Your task to perform on an android device: show emergency info Image 0: 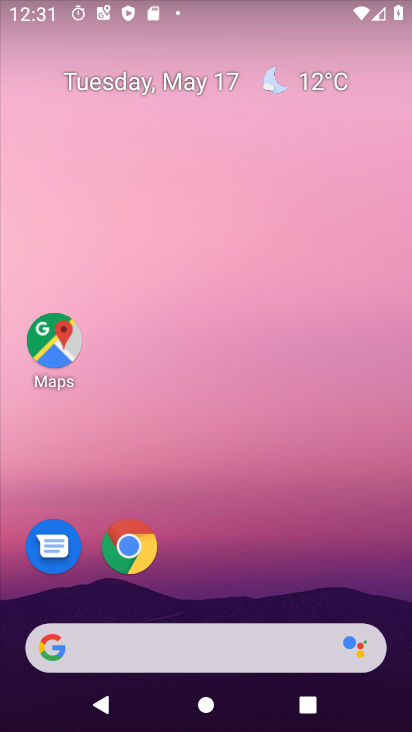
Step 0: drag from (224, 637) to (368, 341)
Your task to perform on an android device: show emergency info Image 1: 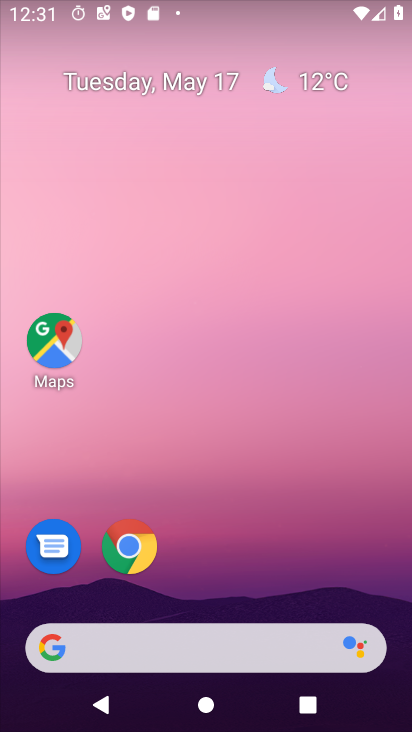
Step 1: drag from (258, 661) to (408, 85)
Your task to perform on an android device: show emergency info Image 2: 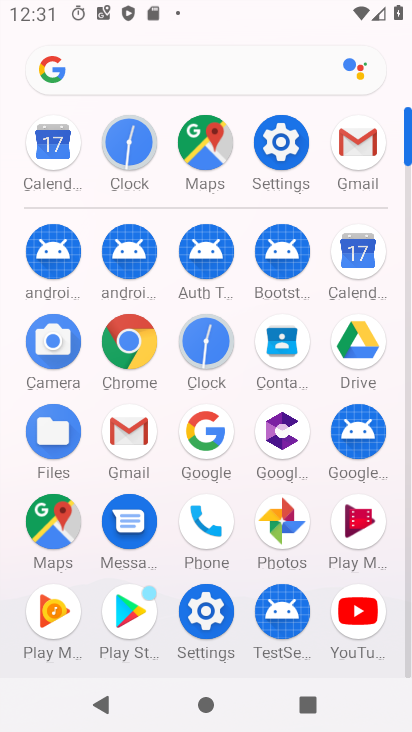
Step 2: click (194, 617)
Your task to perform on an android device: show emergency info Image 3: 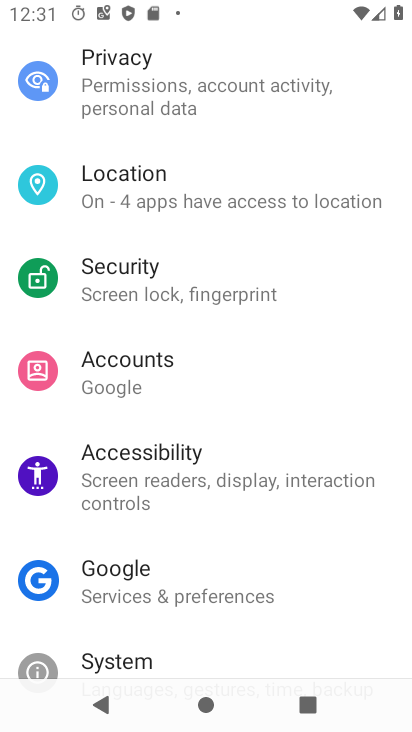
Step 3: drag from (243, 623) to (358, 288)
Your task to perform on an android device: show emergency info Image 4: 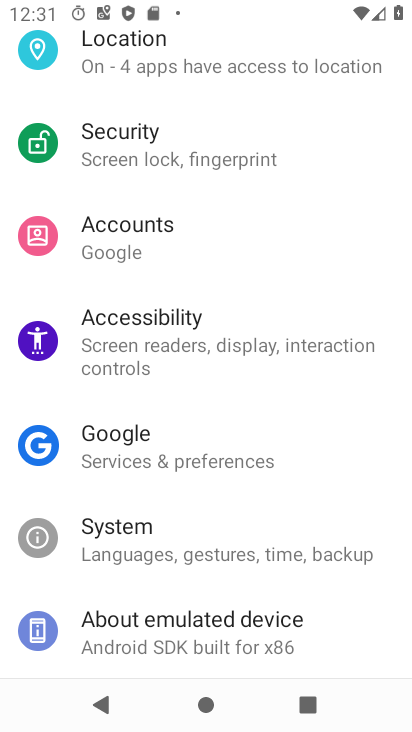
Step 4: click (207, 619)
Your task to perform on an android device: show emergency info Image 5: 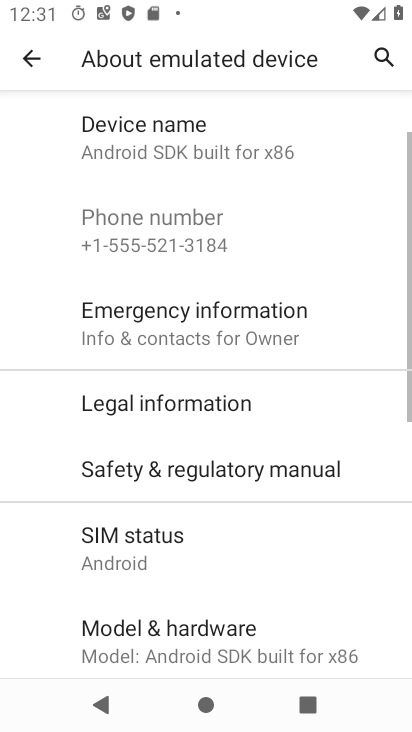
Step 5: click (249, 312)
Your task to perform on an android device: show emergency info Image 6: 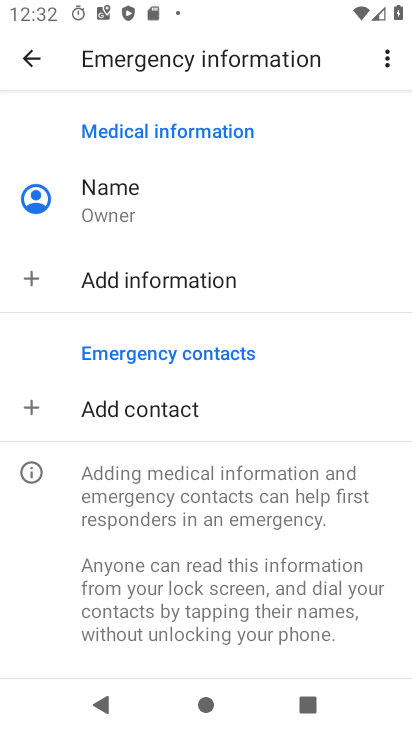
Step 6: task complete